Your task to perform on an android device: Search for sushi restaurants on Maps Image 0: 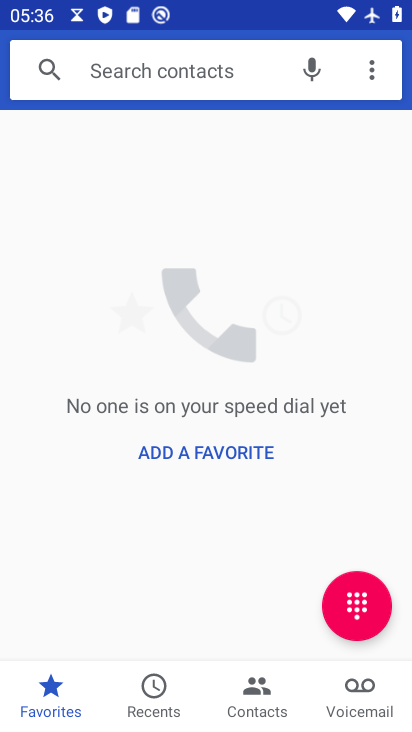
Step 0: press home button
Your task to perform on an android device: Search for sushi restaurants on Maps Image 1: 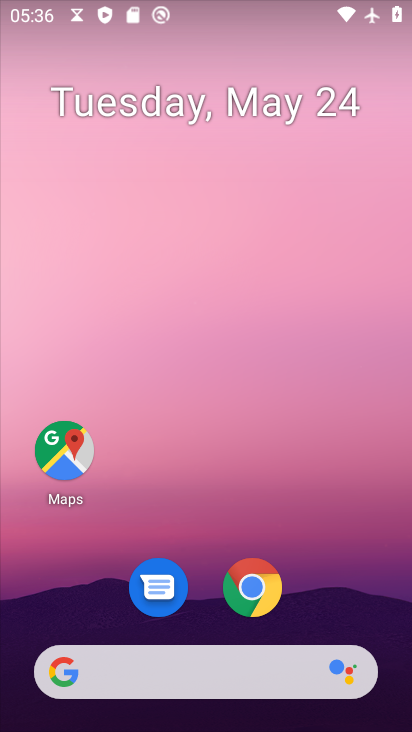
Step 1: click (66, 461)
Your task to perform on an android device: Search for sushi restaurants on Maps Image 2: 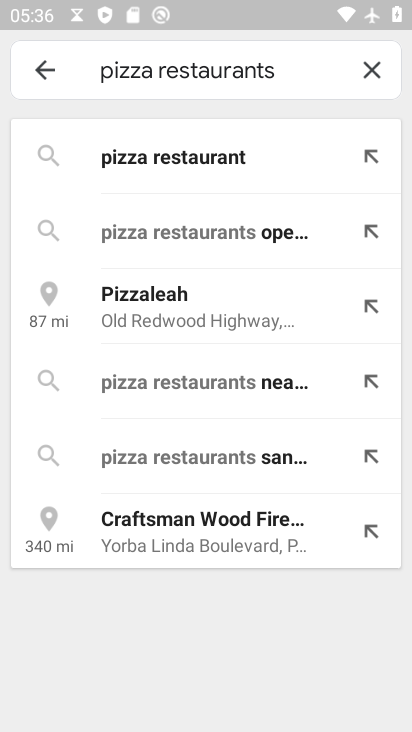
Step 2: click (367, 67)
Your task to perform on an android device: Search for sushi restaurants on Maps Image 3: 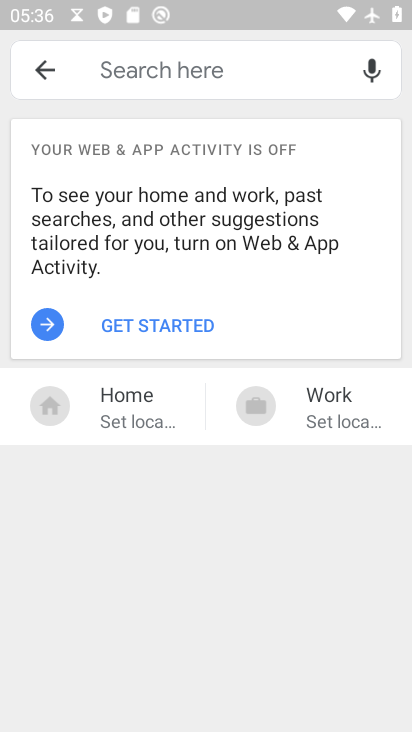
Step 3: click (159, 75)
Your task to perform on an android device: Search for sushi restaurants on Maps Image 4: 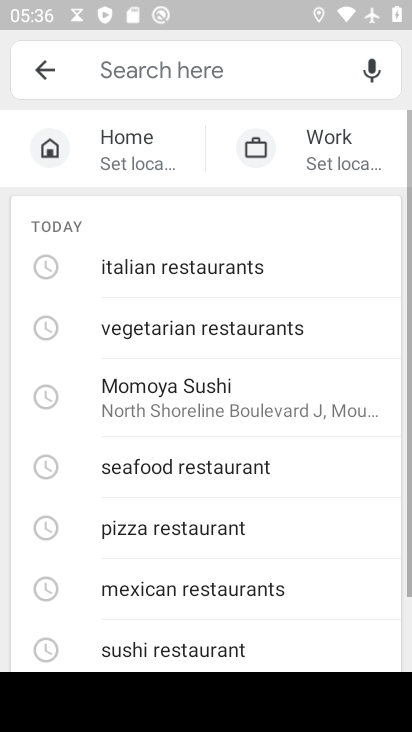
Step 4: type "sushi restaurants"
Your task to perform on an android device: Search for sushi restaurants on Maps Image 5: 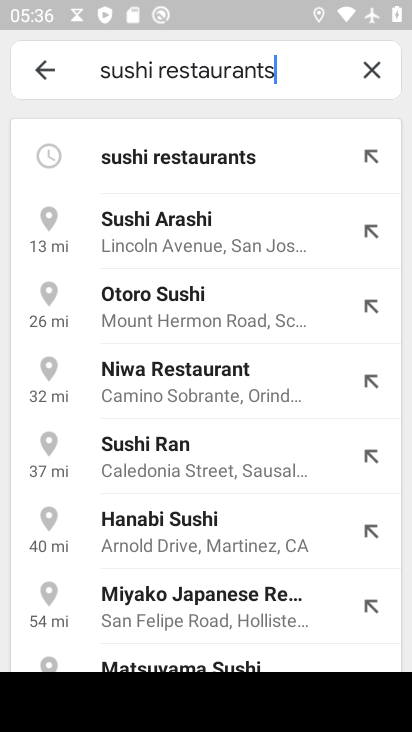
Step 5: click (201, 173)
Your task to perform on an android device: Search for sushi restaurants on Maps Image 6: 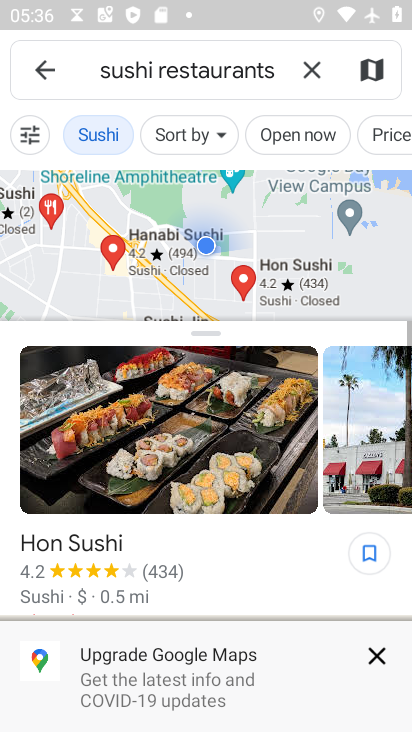
Step 6: task complete